Your task to perform on an android device: find which apps use the phone's location Image 0: 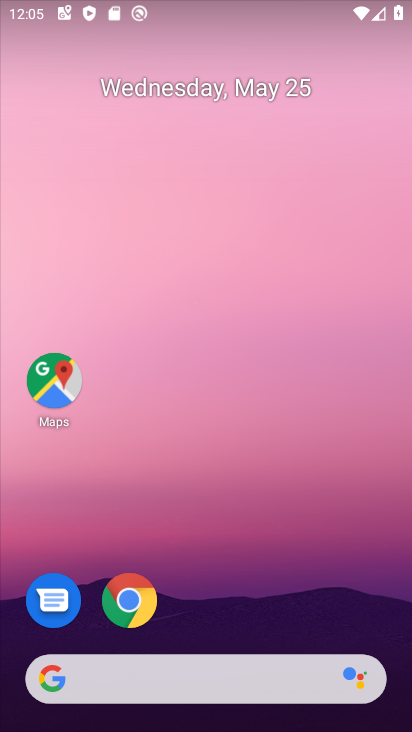
Step 0: drag from (223, 549) to (205, 102)
Your task to perform on an android device: find which apps use the phone's location Image 1: 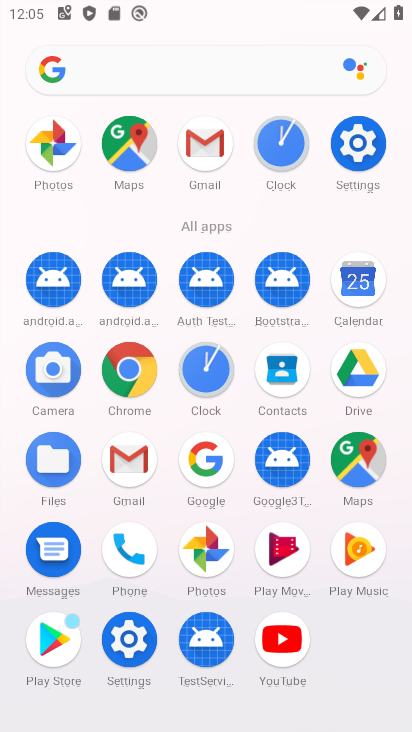
Step 1: click (369, 136)
Your task to perform on an android device: find which apps use the phone's location Image 2: 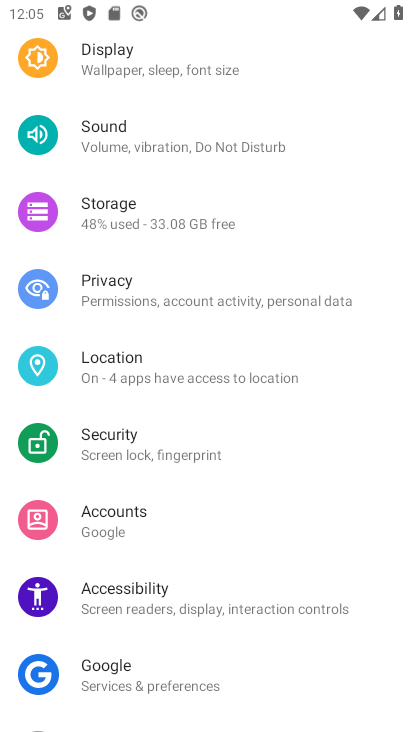
Step 2: click (122, 367)
Your task to perform on an android device: find which apps use the phone's location Image 3: 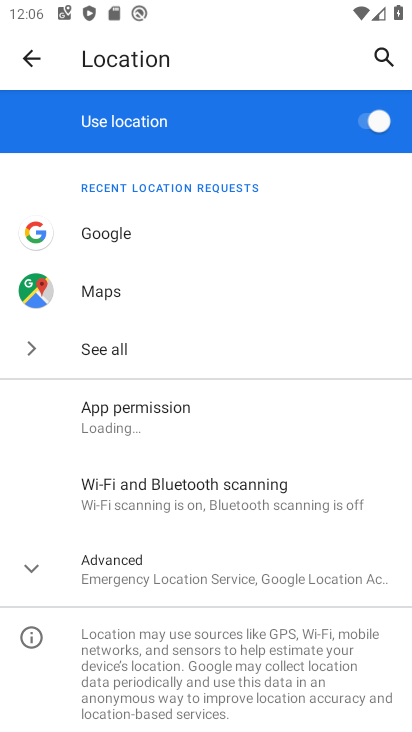
Step 3: click (131, 403)
Your task to perform on an android device: find which apps use the phone's location Image 4: 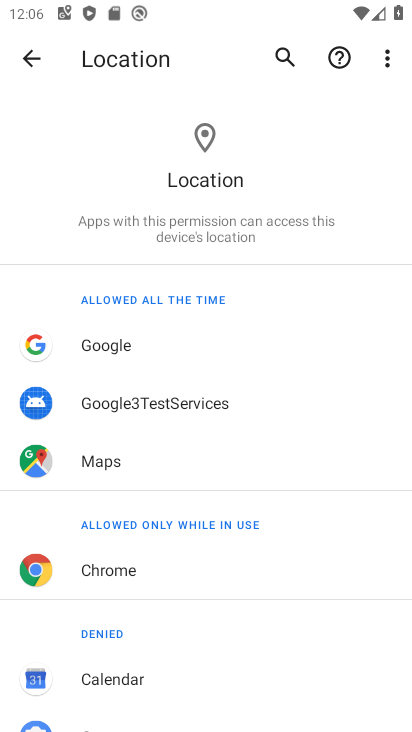
Step 4: task complete